Your task to perform on an android device: Toggle the flashlight Image 0: 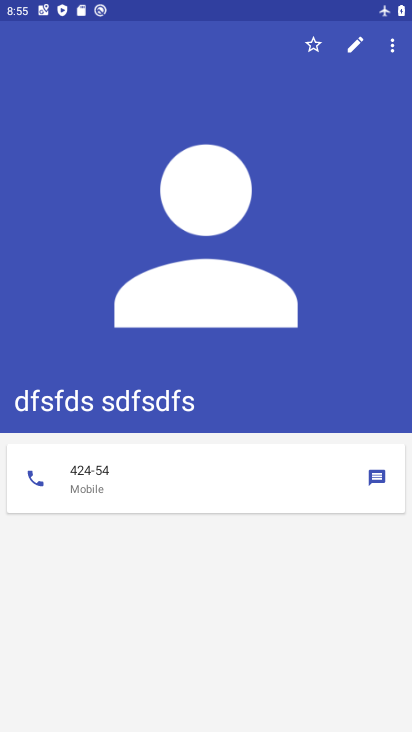
Step 0: task complete